Your task to perform on an android device: turn off location Image 0: 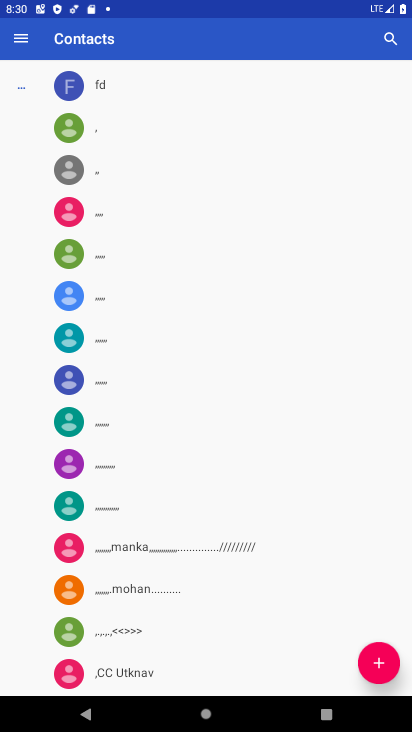
Step 0: press home button
Your task to perform on an android device: turn off location Image 1: 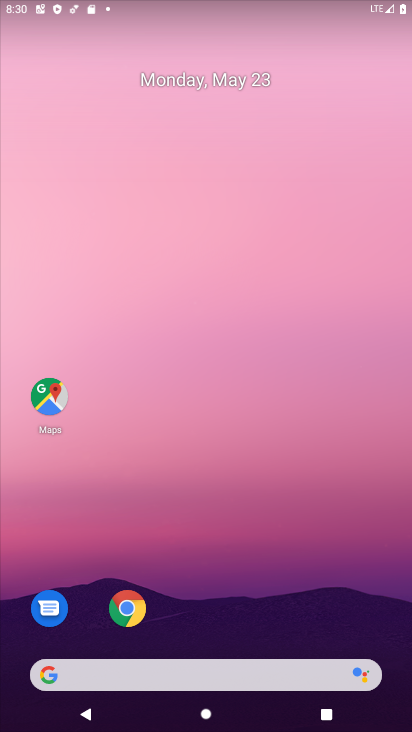
Step 1: drag from (210, 667) to (218, 287)
Your task to perform on an android device: turn off location Image 2: 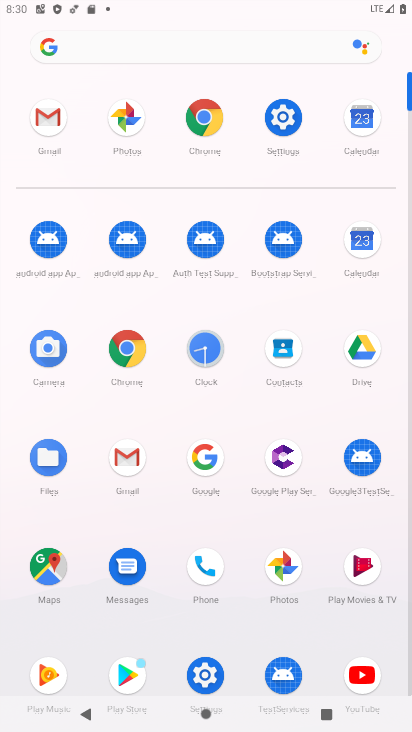
Step 2: click (290, 129)
Your task to perform on an android device: turn off location Image 3: 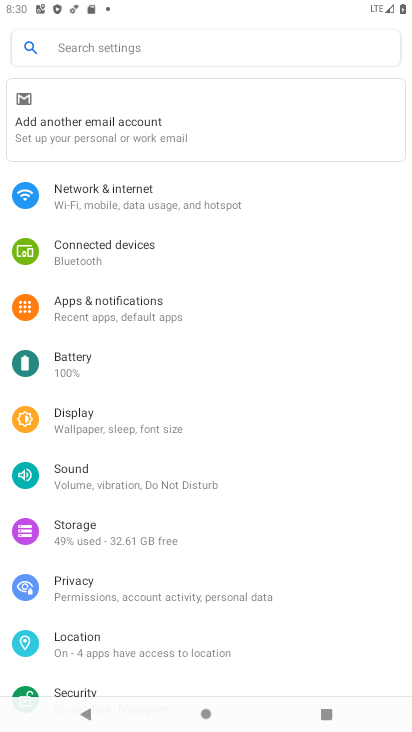
Step 3: click (95, 652)
Your task to perform on an android device: turn off location Image 4: 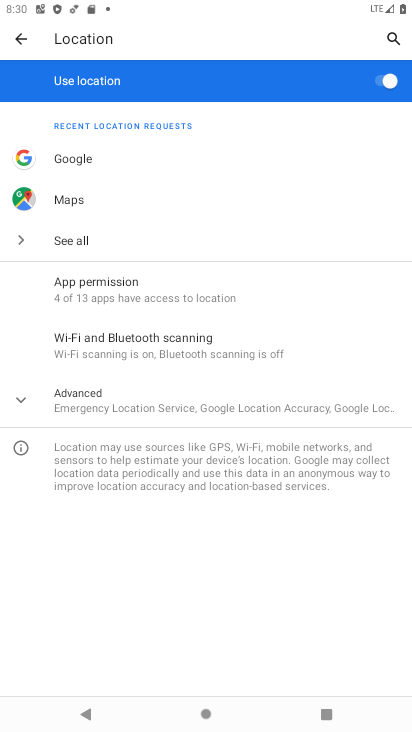
Step 4: click (385, 86)
Your task to perform on an android device: turn off location Image 5: 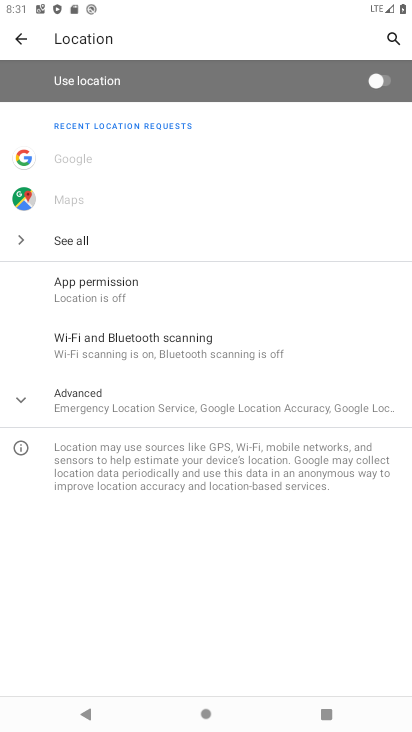
Step 5: task complete